Your task to perform on an android device: Open Google Maps Image 0: 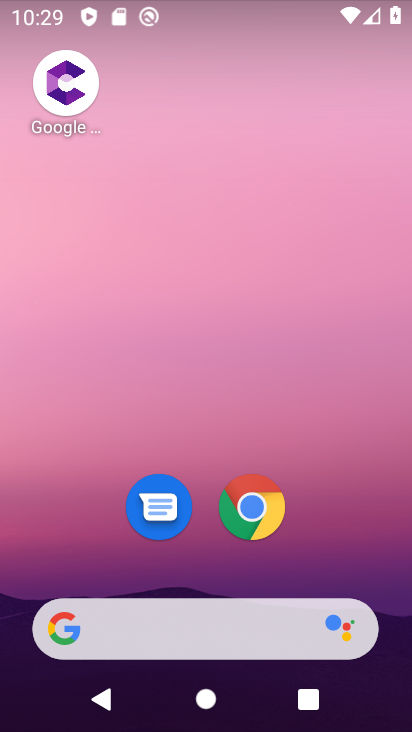
Step 0: drag from (205, 641) to (309, 177)
Your task to perform on an android device: Open Google Maps Image 1: 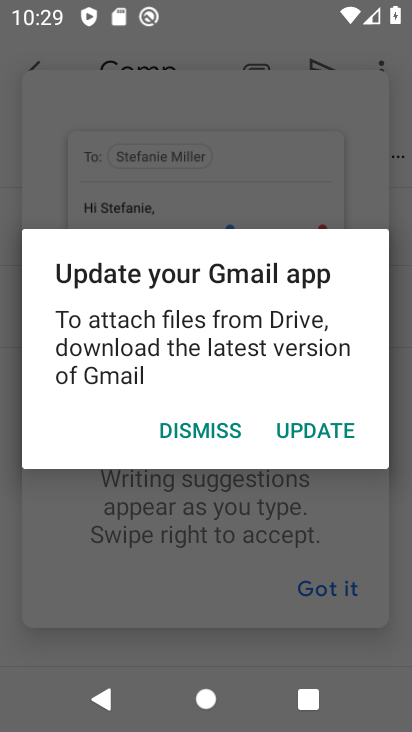
Step 1: press home button
Your task to perform on an android device: Open Google Maps Image 2: 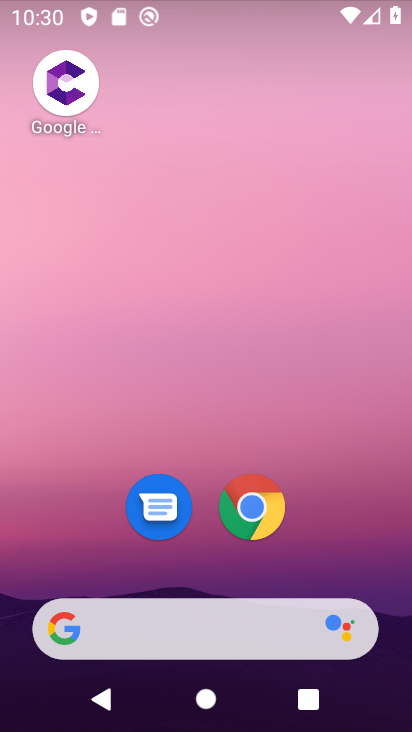
Step 2: drag from (247, 660) to (280, 48)
Your task to perform on an android device: Open Google Maps Image 3: 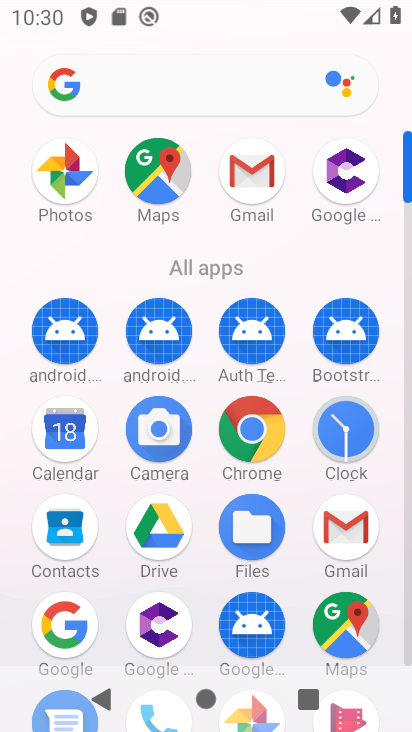
Step 3: click (165, 167)
Your task to perform on an android device: Open Google Maps Image 4: 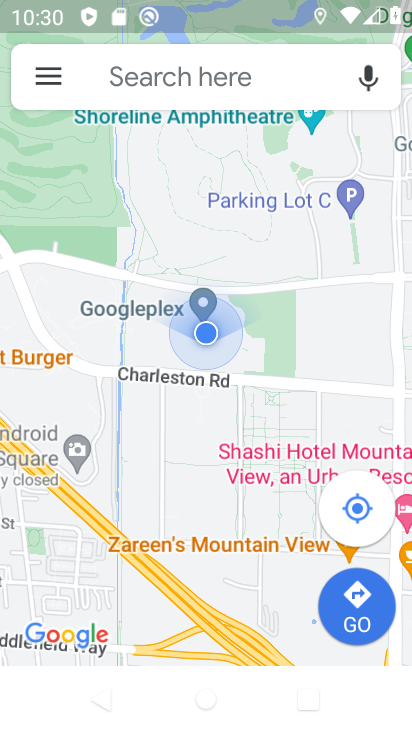
Step 4: click (49, 82)
Your task to perform on an android device: Open Google Maps Image 5: 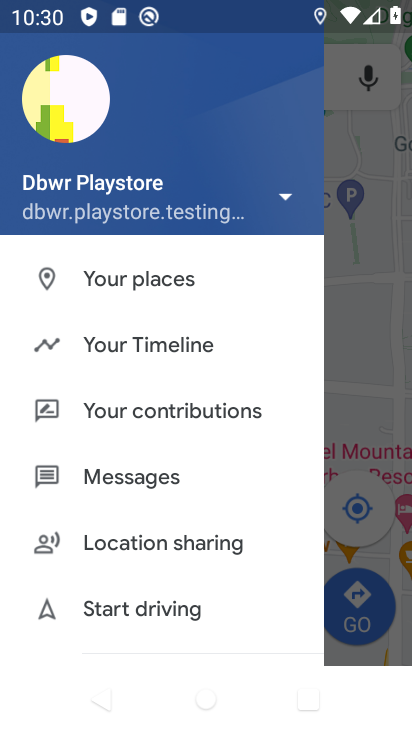
Step 5: drag from (152, 552) to (191, 443)
Your task to perform on an android device: Open Google Maps Image 6: 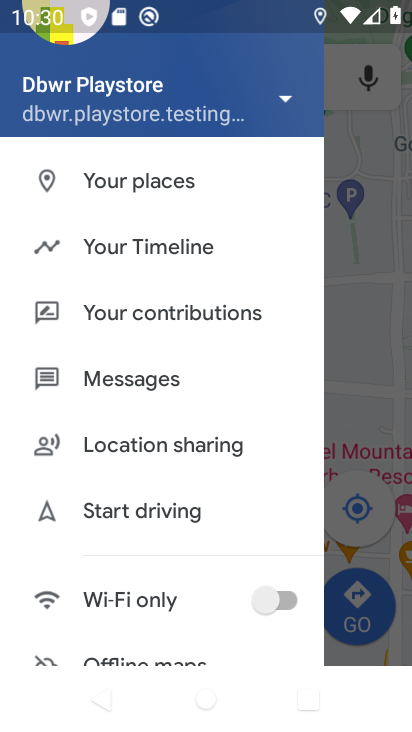
Step 6: click (364, 204)
Your task to perform on an android device: Open Google Maps Image 7: 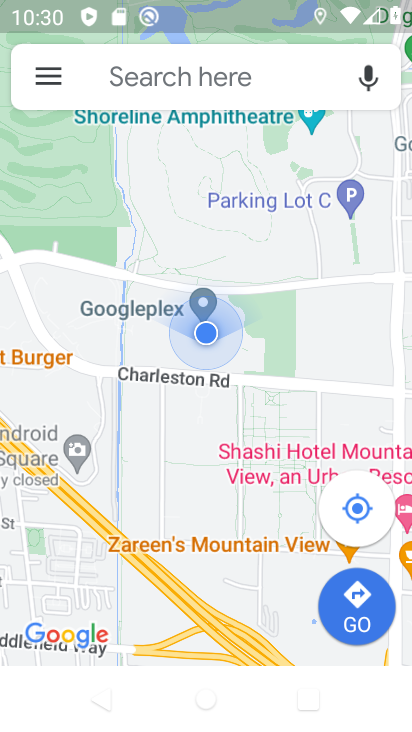
Step 7: task complete